Your task to perform on an android device: Open wifi settings Image 0: 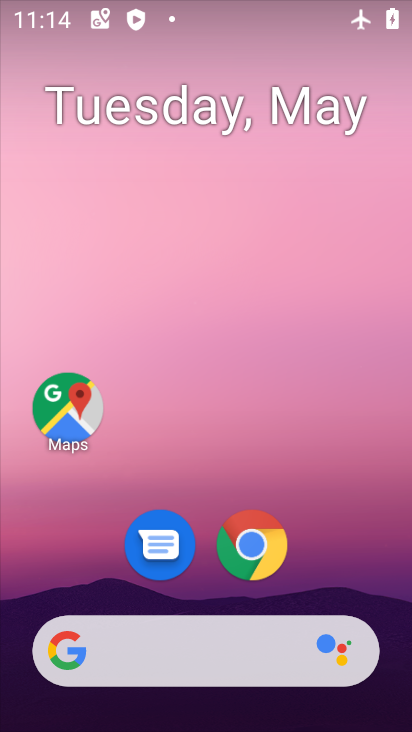
Step 0: drag from (237, 555) to (206, 244)
Your task to perform on an android device: Open wifi settings Image 1: 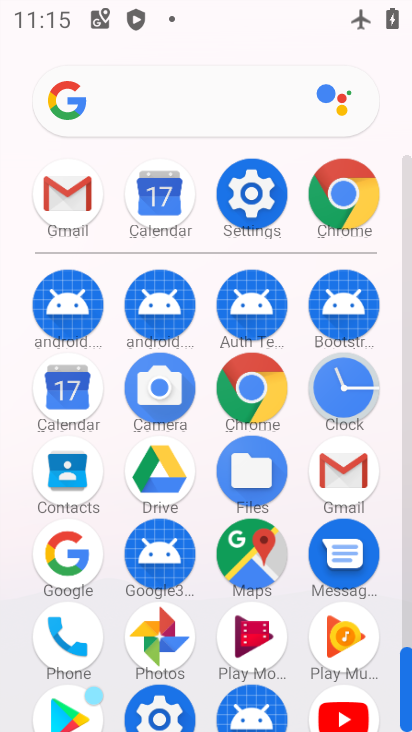
Step 1: drag from (256, 362) to (262, 213)
Your task to perform on an android device: Open wifi settings Image 2: 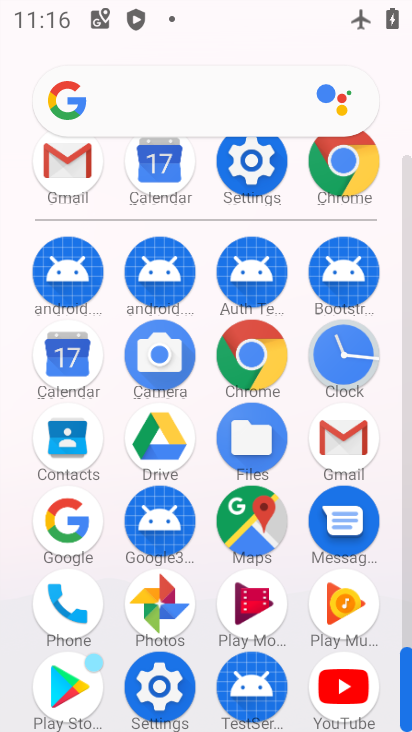
Step 2: click (249, 140)
Your task to perform on an android device: Open wifi settings Image 3: 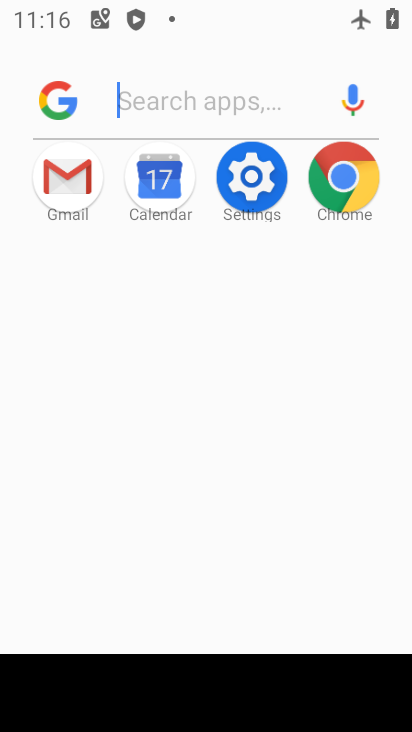
Step 3: click (259, 193)
Your task to perform on an android device: Open wifi settings Image 4: 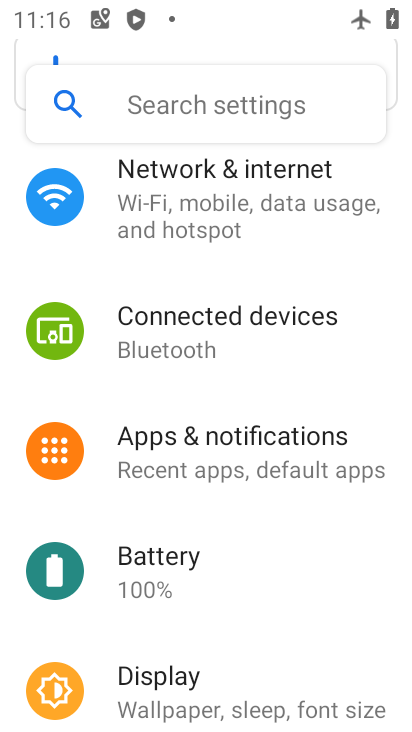
Step 4: click (240, 212)
Your task to perform on an android device: Open wifi settings Image 5: 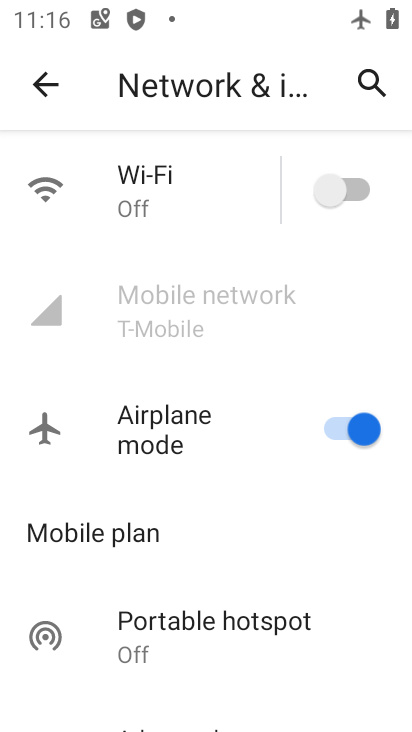
Step 5: click (273, 338)
Your task to perform on an android device: Open wifi settings Image 6: 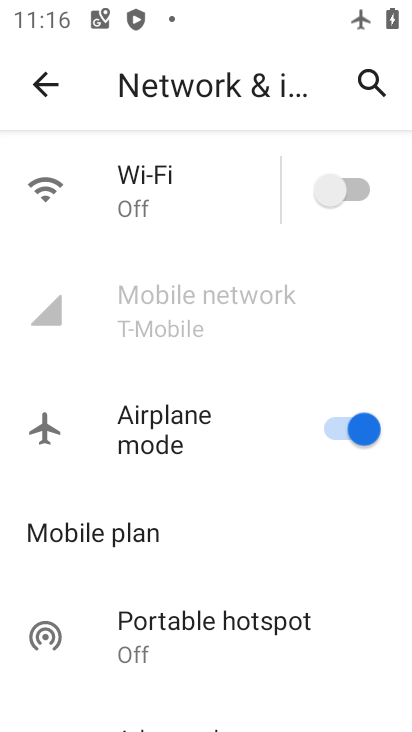
Step 6: click (153, 192)
Your task to perform on an android device: Open wifi settings Image 7: 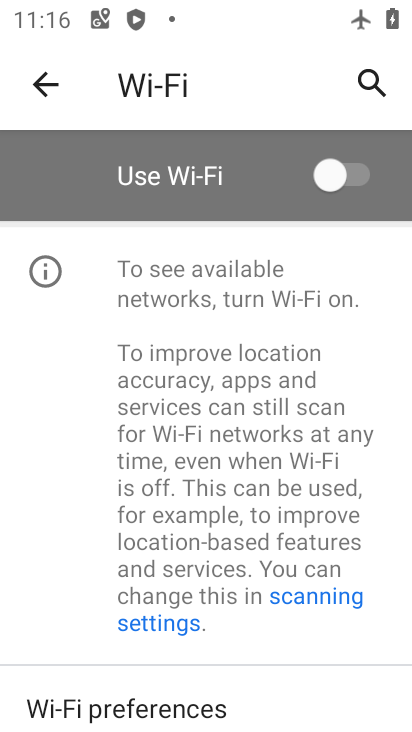
Step 7: task complete